Your task to perform on an android device: Open Chrome and go to the settings page Image 0: 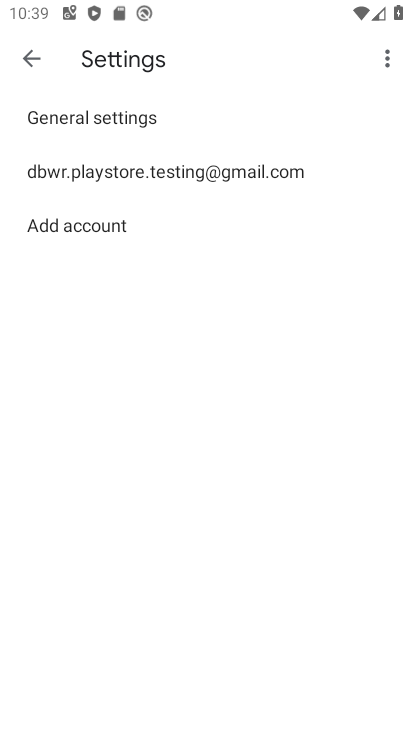
Step 0: press home button
Your task to perform on an android device: Open Chrome and go to the settings page Image 1: 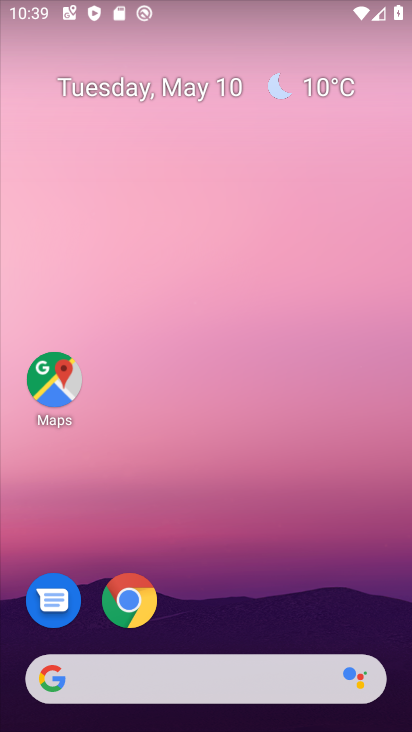
Step 1: click (141, 597)
Your task to perform on an android device: Open Chrome and go to the settings page Image 2: 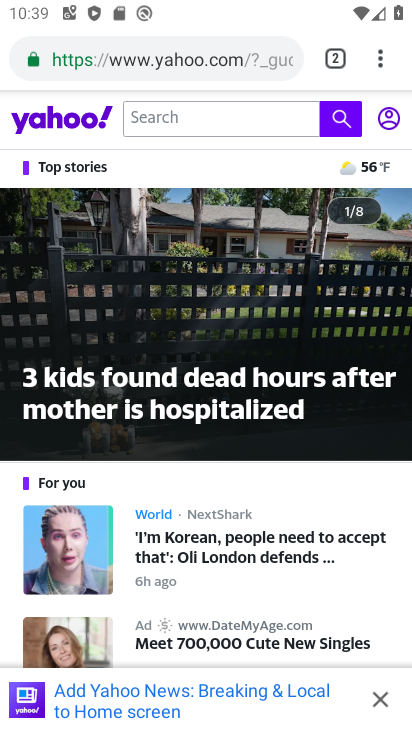
Step 2: click (391, 54)
Your task to perform on an android device: Open Chrome and go to the settings page Image 3: 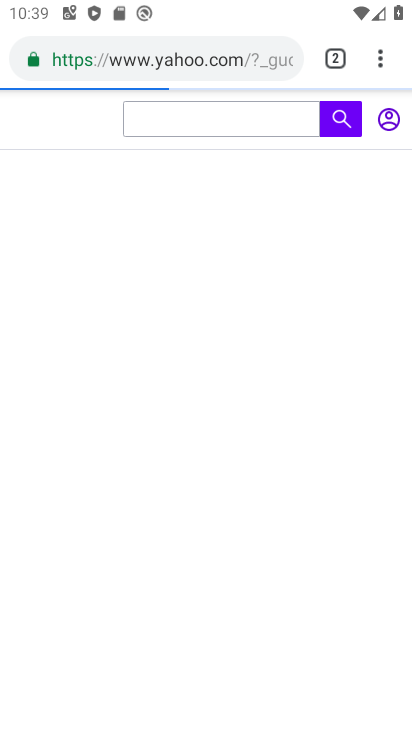
Step 3: click (375, 63)
Your task to perform on an android device: Open Chrome and go to the settings page Image 4: 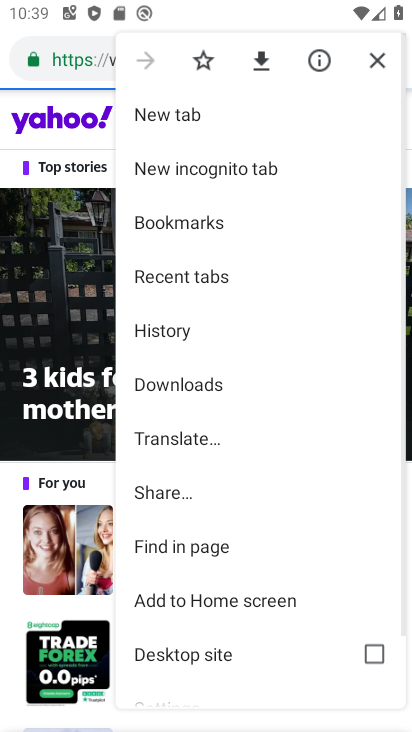
Step 4: drag from (236, 633) to (232, 276)
Your task to perform on an android device: Open Chrome and go to the settings page Image 5: 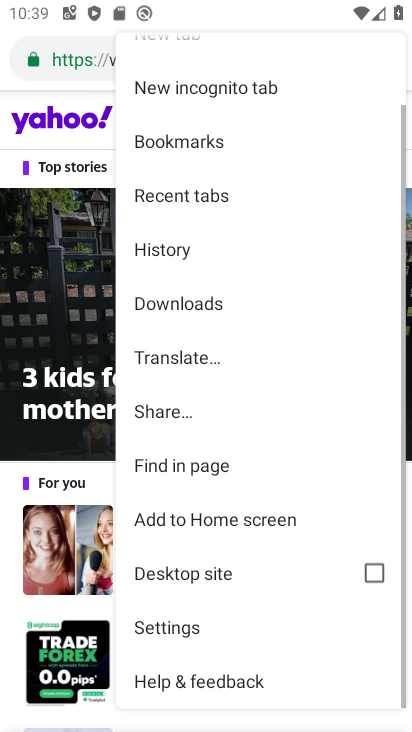
Step 5: click (207, 634)
Your task to perform on an android device: Open Chrome and go to the settings page Image 6: 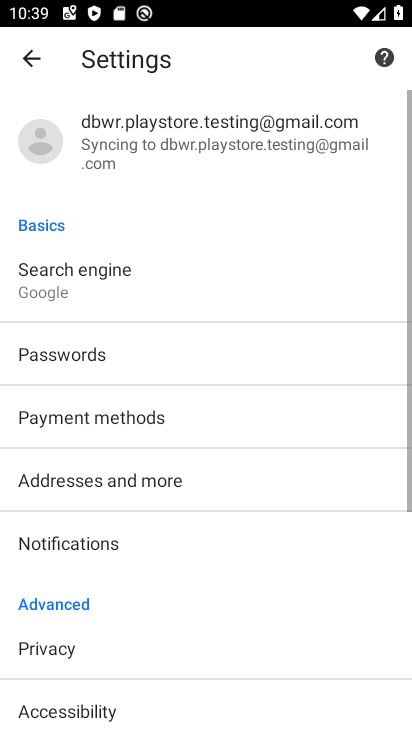
Step 6: task complete